Your task to perform on an android device: turn on data saver in the chrome app Image 0: 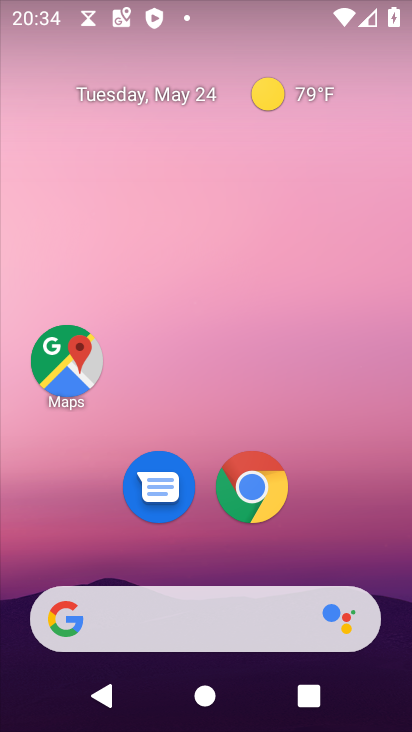
Step 0: press home button
Your task to perform on an android device: turn on data saver in the chrome app Image 1: 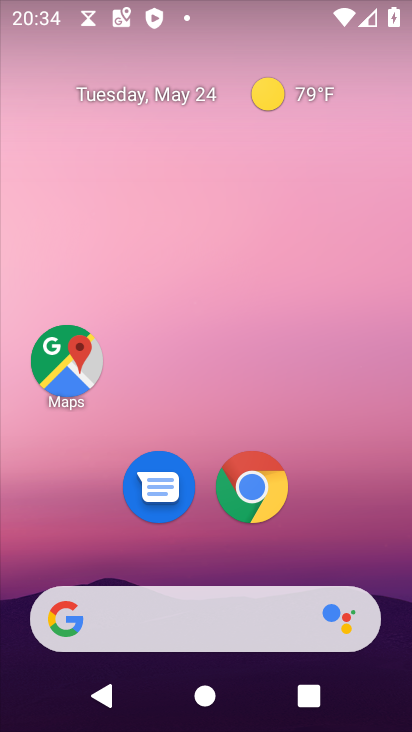
Step 1: click (241, 482)
Your task to perform on an android device: turn on data saver in the chrome app Image 2: 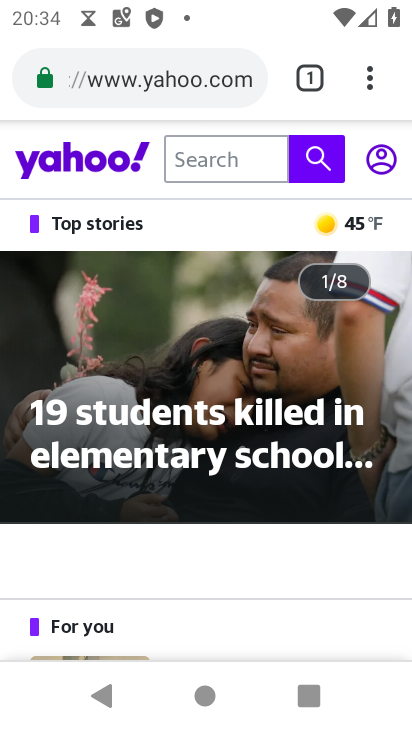
Step 2: click (366, 89)
Your task to perform on an android device: turn on data saver in the chrome app Image 3: 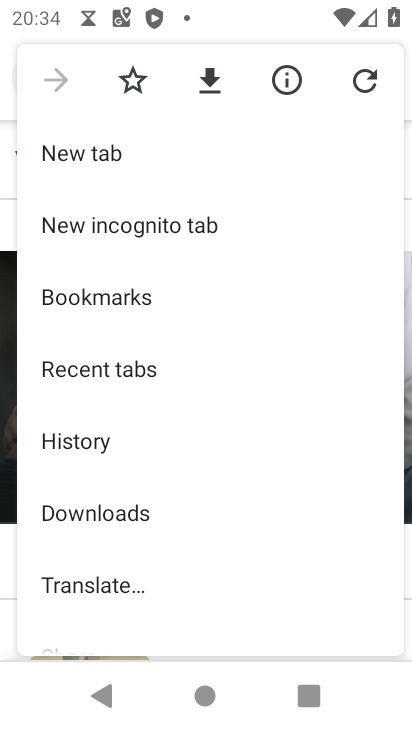
Step 3: drag from (6, 633) to (270, 201)
Your task to perform on an android device: turn on data saver in the chrome app Image 4: 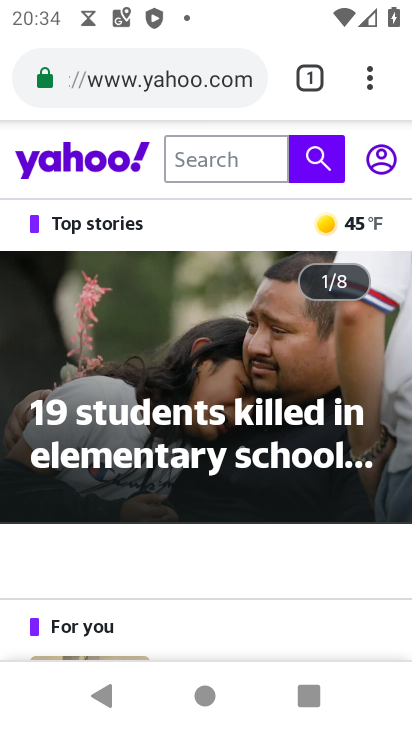
Step 4: click (369, 77)
Your task to perform on an android device: turn on data saver in the chrome app Image 5: 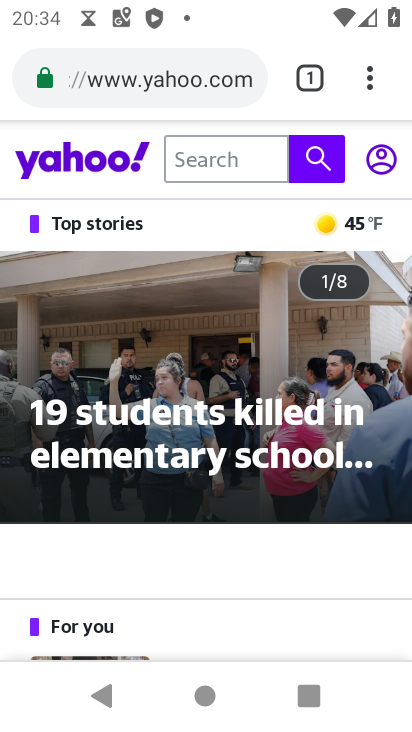
Step 5: click (382, 82)
Your task to perform on an android device: turn on data saver in the chrome app Image 6: 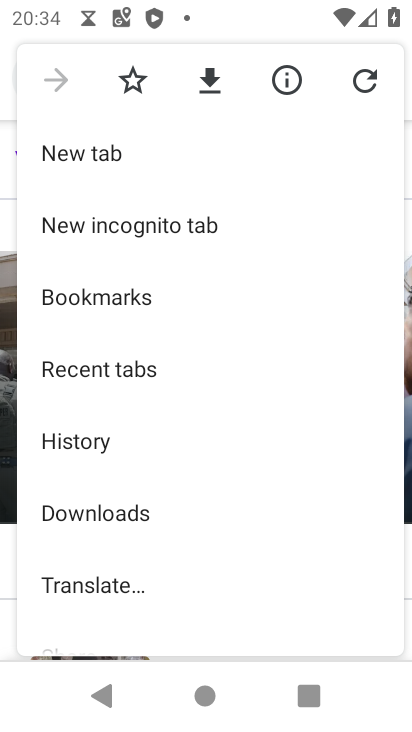
Step 6: drag from (4, 672) to (285, 97)
Your task to perform on an android device: turn on data saver in the chrome app Image 7: 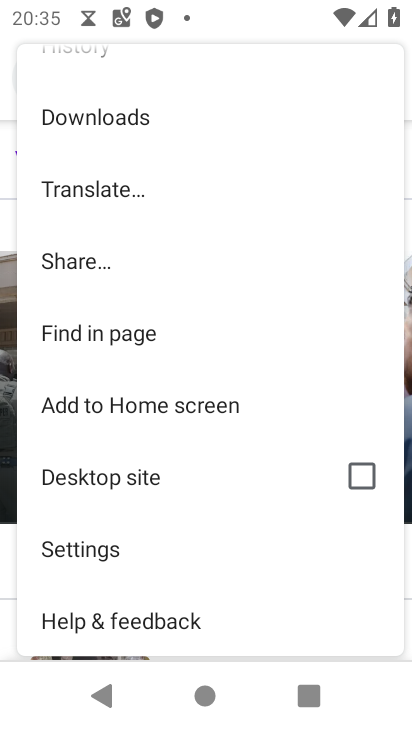
Step 7: click (128, 542)
Your task to perform on an android device: turn on data saver in the chrome app Image 8: 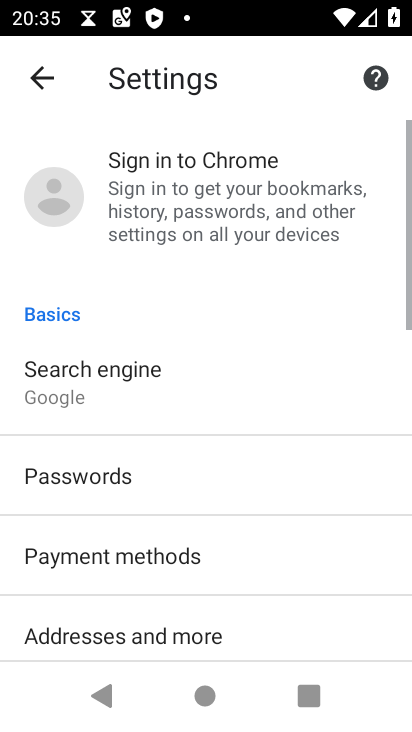
Step 8: drag from (24, 528) to (268, 85)
Your task to perform on an android device: turn on data saver in the chrome app Image 9: 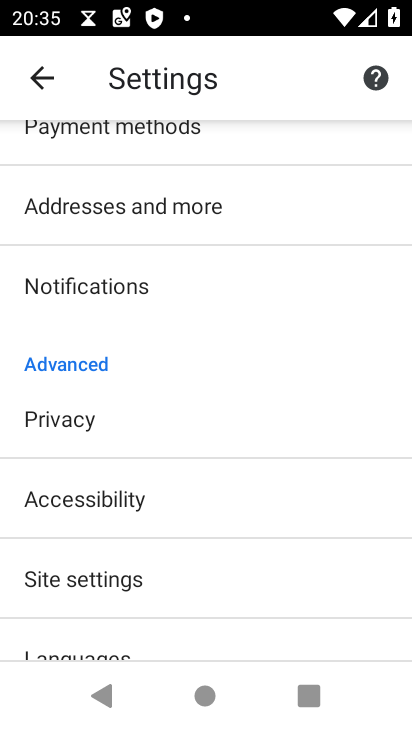
Step 9: drag from (33, 558) to (296, 132)
Your task to perform on an android device: turn on data saver in the chrome app Image 10: 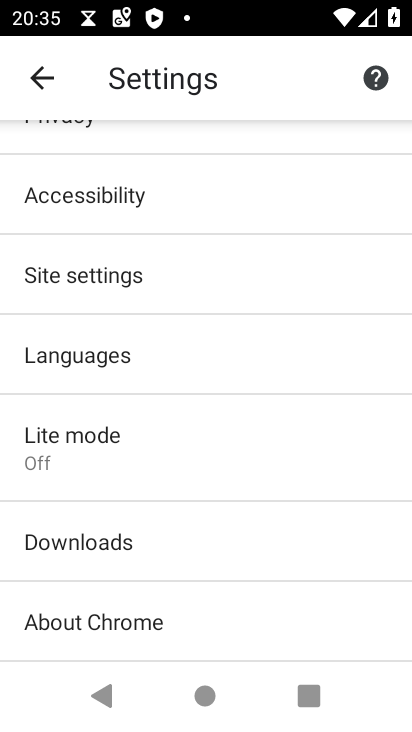
Step 10: click (68, 430)
Your task to perform on an android device: turn on data saver in the chrome app Image 11: 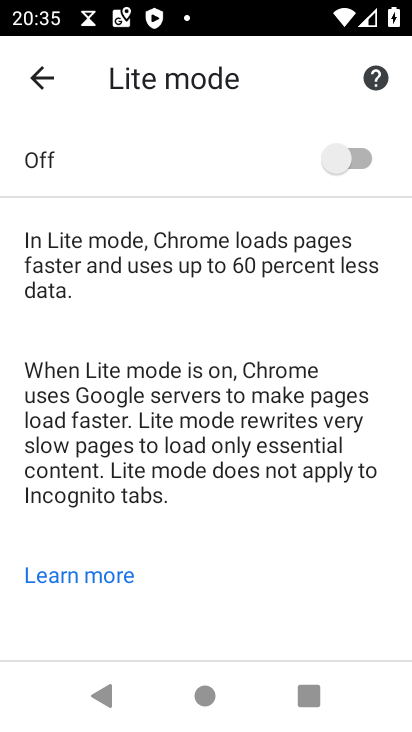
Step 11: click (345, 158)
Your task to perform on an android device: turn on data saver in the chrome app Image 12: 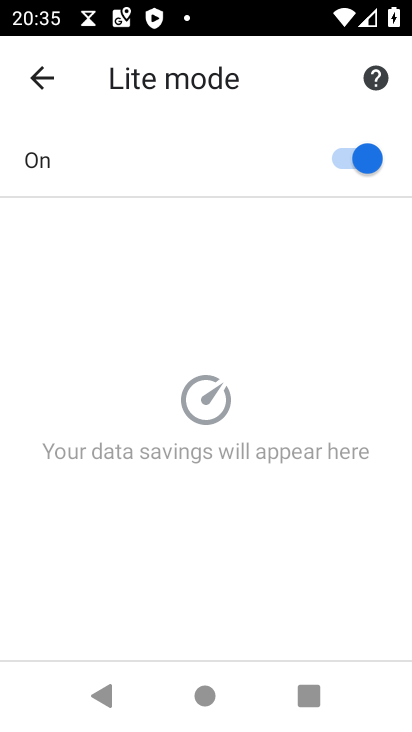
Step 12: task complete